Your task to perform on an android device: delete browsing data in the chrome app Image 0: 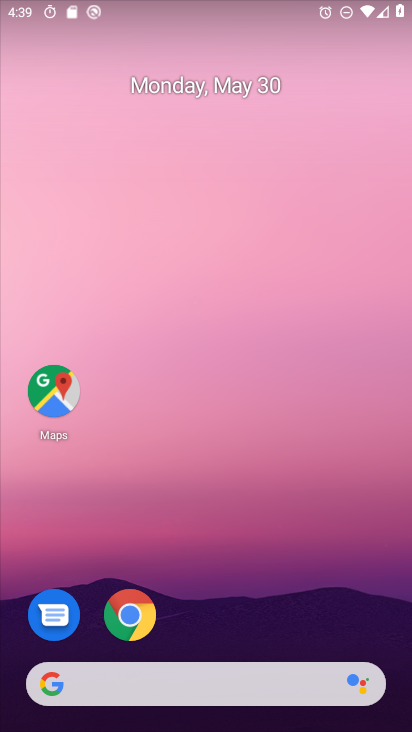
Step 0: click (129, 614)
Your task to perform on an android device: delete browsing data in the chrome app Image 1: 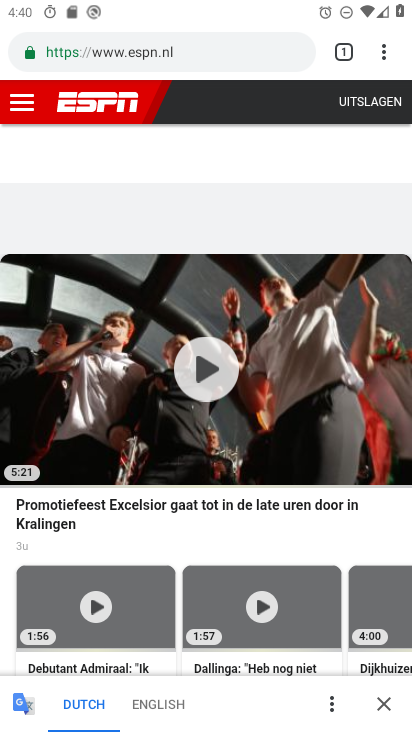
Step 1: click (382, 54)
Your task to perform on an android device: delete browsing data in the chrome app Image 2: 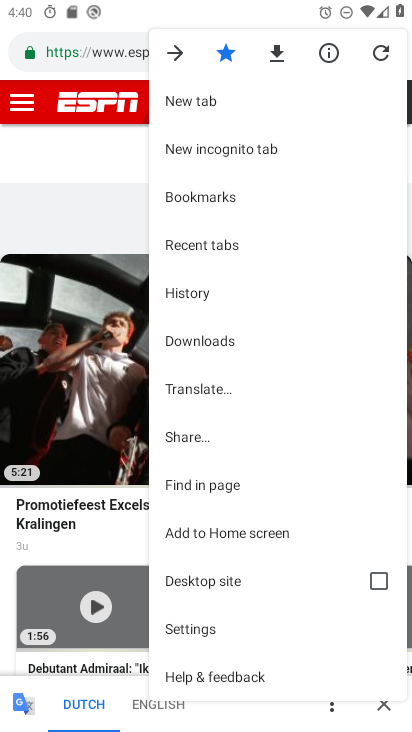
Step 2: click (189, 627)
Your task to perform on an android device: delete browsing data in the chrome app Image 3: 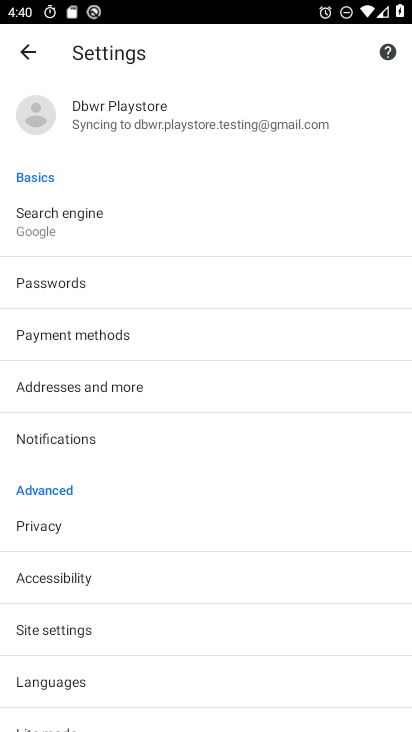
Step 3: click (62, 528)
Your task to perform on an android device: delete browsing data in the chrome app Image 4: 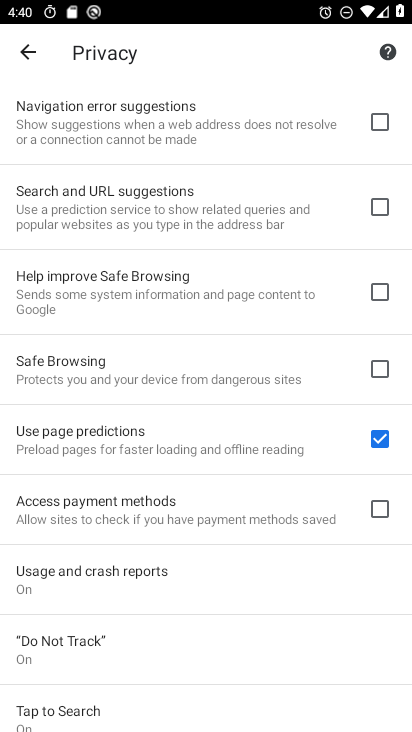
Step 4: drag from (116, 574) to (172, 498)
Your task to perform on an android device: delete browsing data in the chrome app Image 5: 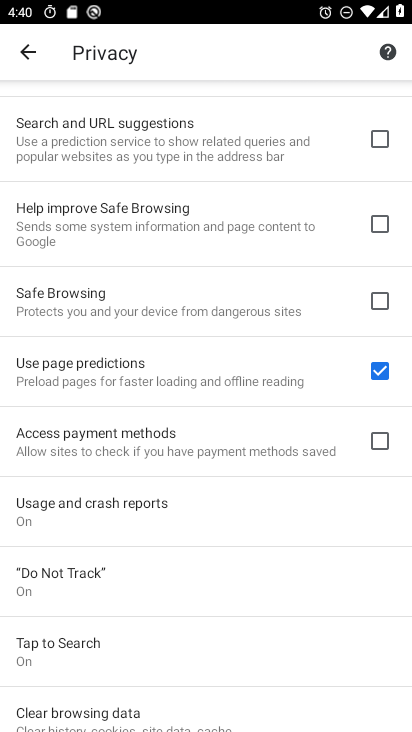
Step 5: drag from (100, 638) to (140, 540)
Your task to perform on an android device: delete browsing data in the chrome app Image 6: 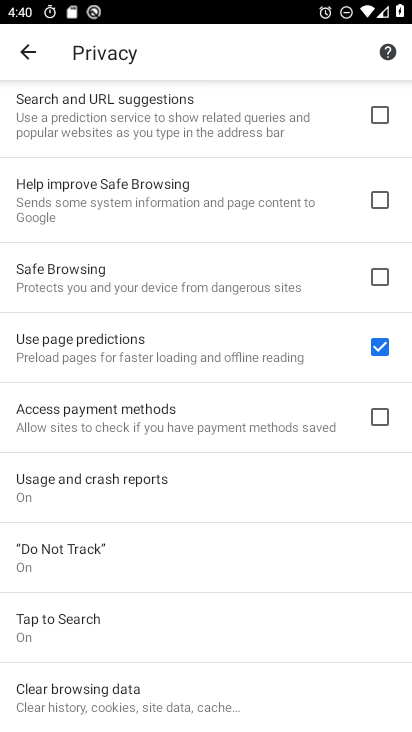
Step 6: click (72, 697)
Your task to perform on an android device: delete browsing data in the chrome app Image 7: 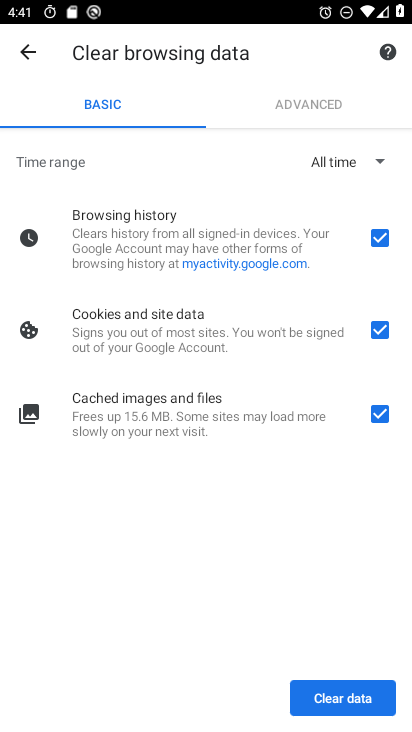
Step 7: click (328, 681)
Your task to perform on an android device: delete browsing data in the chrome app Image 8: 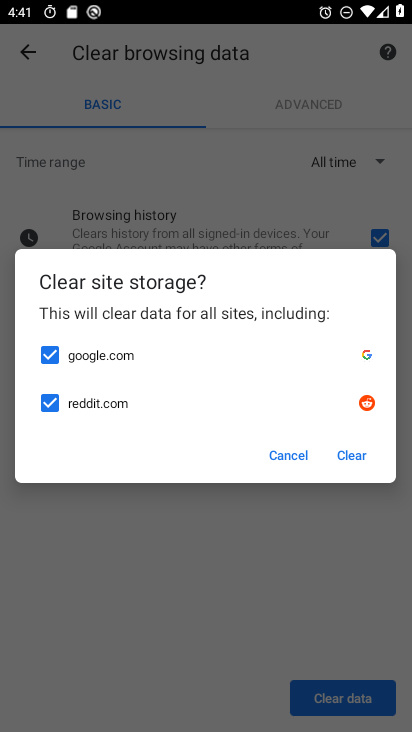
Step 8: click (357, 449)
Your task to perform on an android device: delete browsing data in the chrome app Image 9: 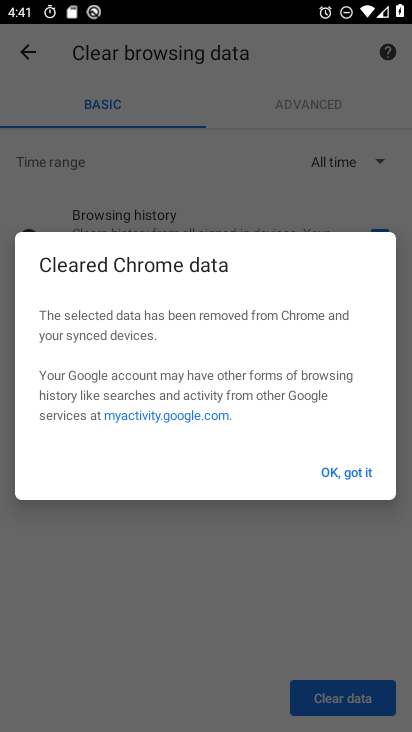
Step 9: click (376, 462)
Your task to perform on an android device: delete browsing data in the chrome app Image 10: 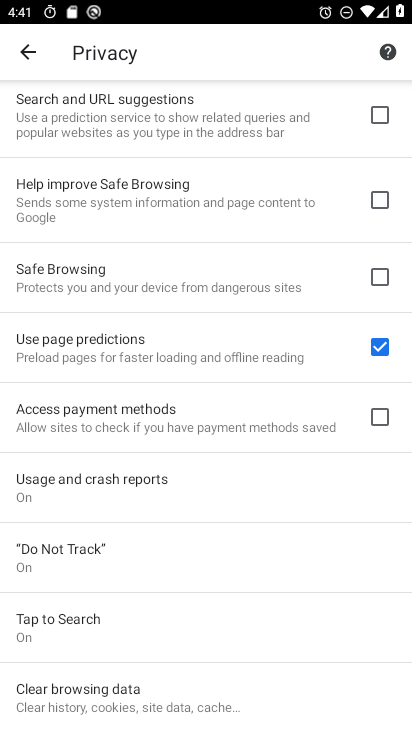
Step 10: task complete